Your task to perform on an android device: What's the weather going to be this weekend? Image 0: 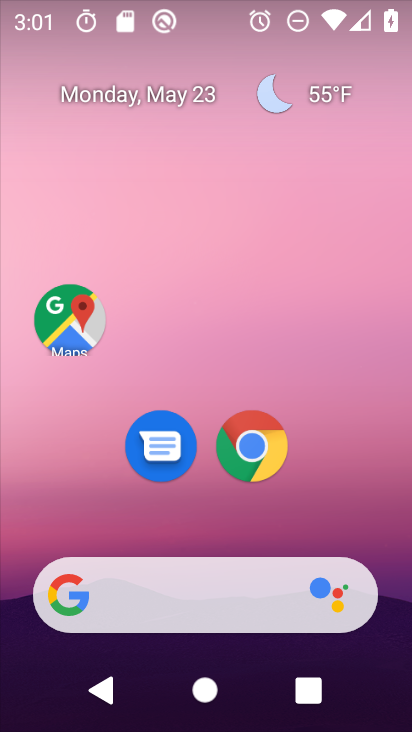
Step 0: drag from (213, 531) to (198, 226)
Your task to perform on an android device: What's the weather going to be this weekend? Image 1: 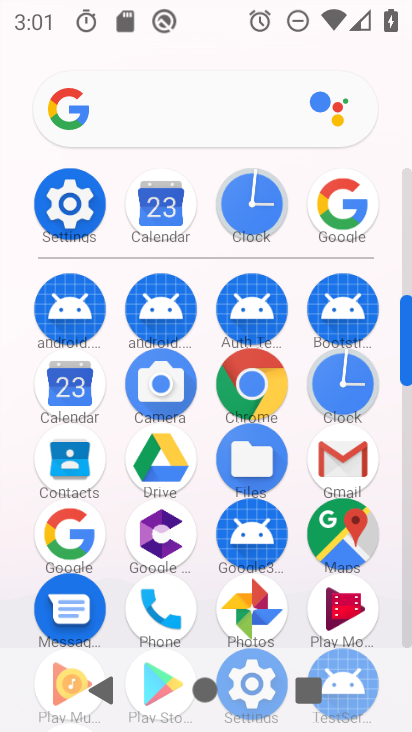
Step 1: click (61, 535)
Your task to perform on an android device: What's the weather going to be this weekend? Image 2: 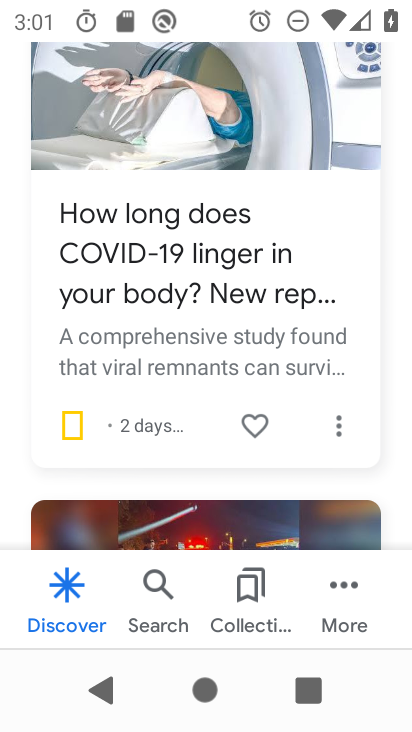
Step 2: drag from (171, 162) to (216, 472)
Your task to perform on an android device: What's the weather going to be this weekend? Image 3: 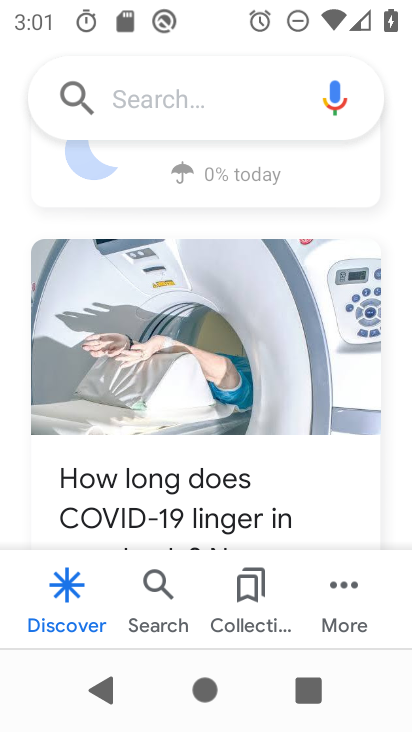
Step 3: drag from (200, 237) to (225, 474)
Your task to perform on an android device: What's the weather going to be this weekend? Image 4: 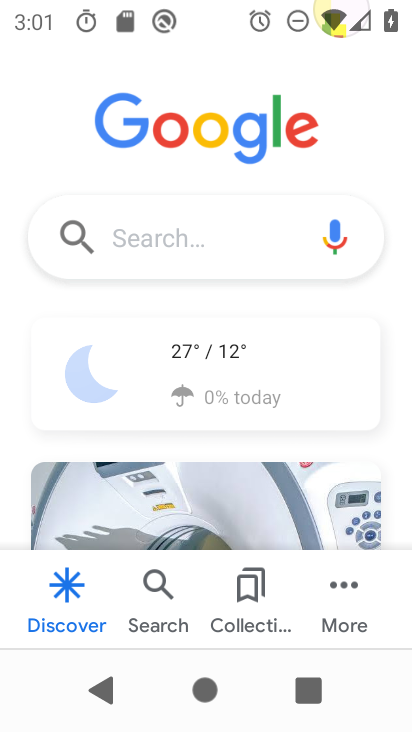
Step 4: click (216, 386)
Your task to perform on an android device: What's the weather going to be this weekend? Image 5: 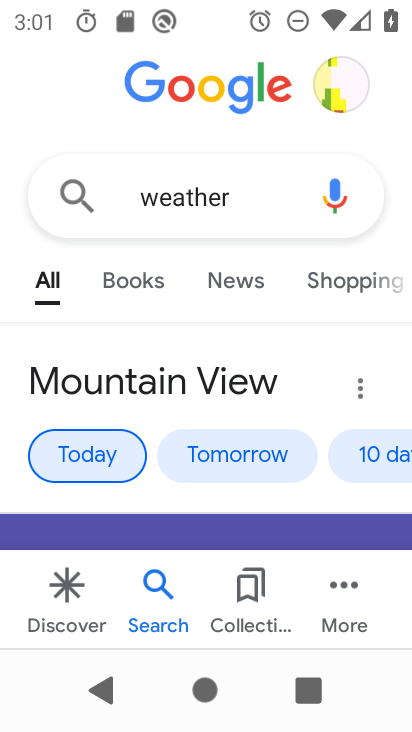
Step 5: click (359, 449)
Your task to perform on an android device: What's the weather going to be this weekend? Image 6: 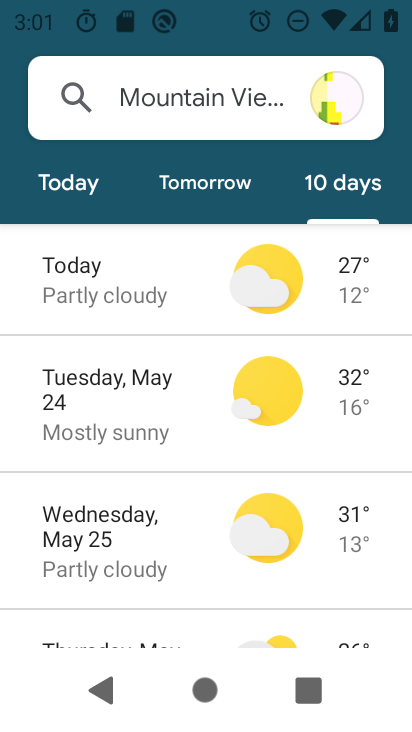
Step 6: task complete